Your task to perform on an android device: Search for vegetarian restaurants on Maps Image 0: 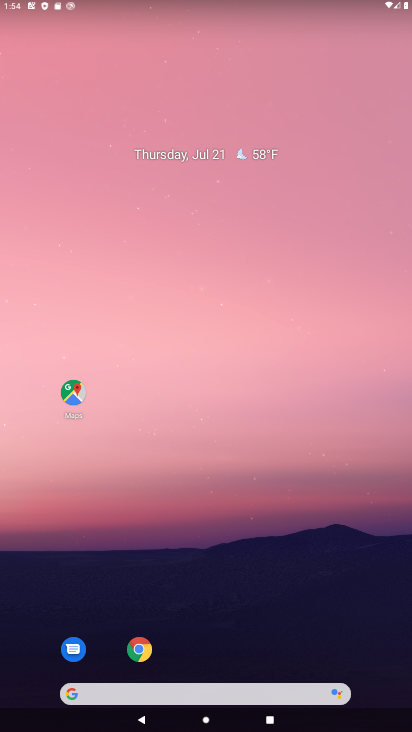
Step 0: click (83, 390)
Your task to perform on an android device: Search for vegetarian restaurants on Maps Image 1: 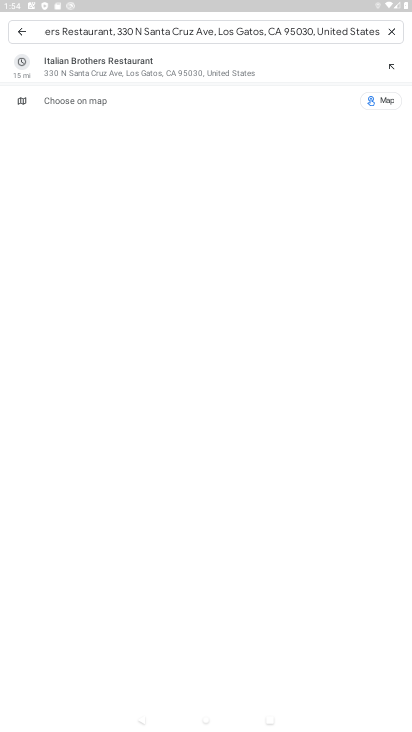
Step 1: click (230, 34)
Your task to perform on an android device: Search for vegetarian restaurants on Maps Image 2: 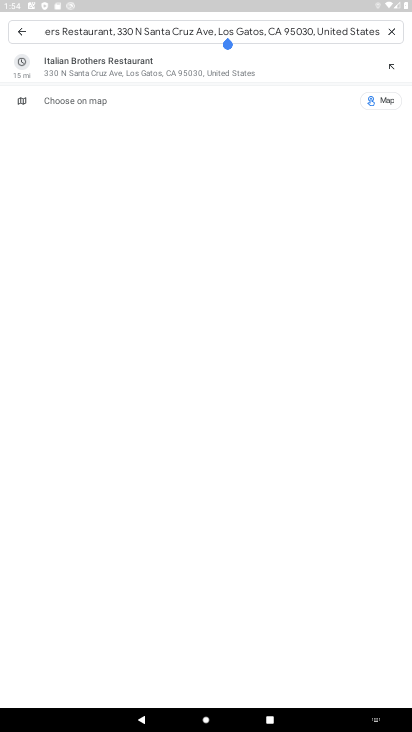
Step 2: click (24, 28)
Your task to perform on an android device: Search for vegetarian restaurants on Maps Image 3: 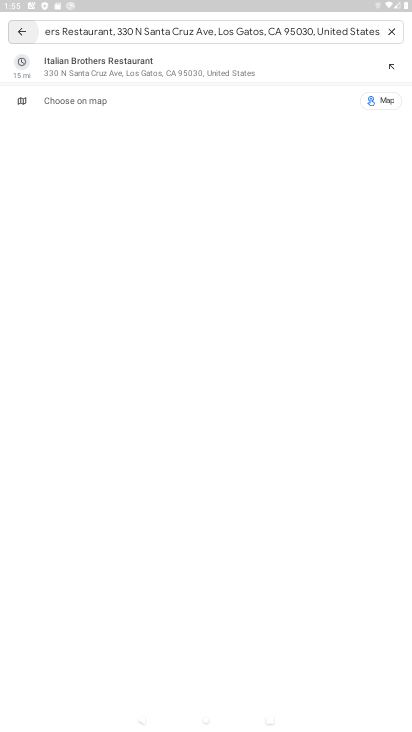
Step 3: click (24, 28)
Your task to perform on an android device: Search for vegetarian restaurants on Maps Image 4: 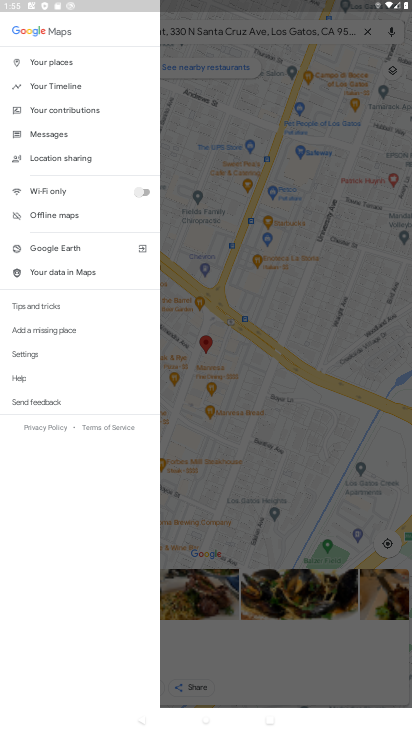
Step 4: click (60, 350)
Your task to perform on an android device: Search for vegetarian restaurants on Maps Image 5: 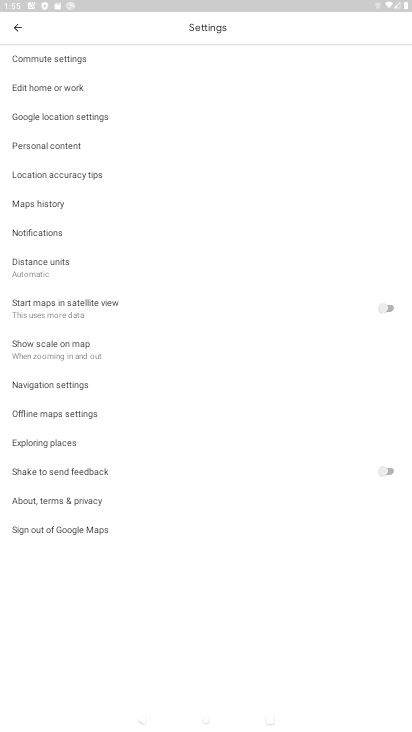
Step 5: task complete